Your task to perform on an android device: open device folders in google photos Image 0: 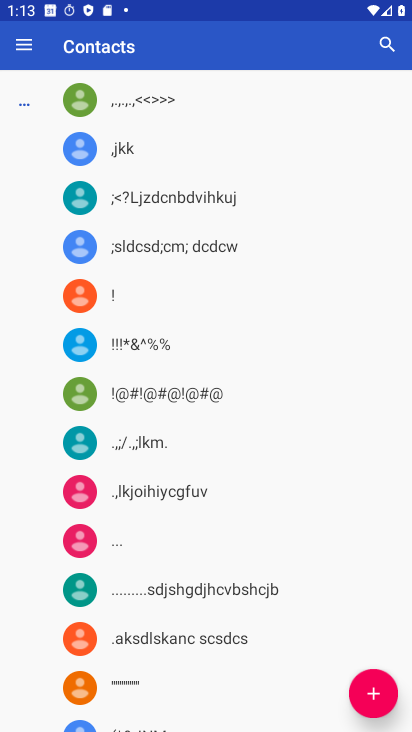
Step 0: press home button
Your task to perform on an android device: open device folders in google photos Image 1: 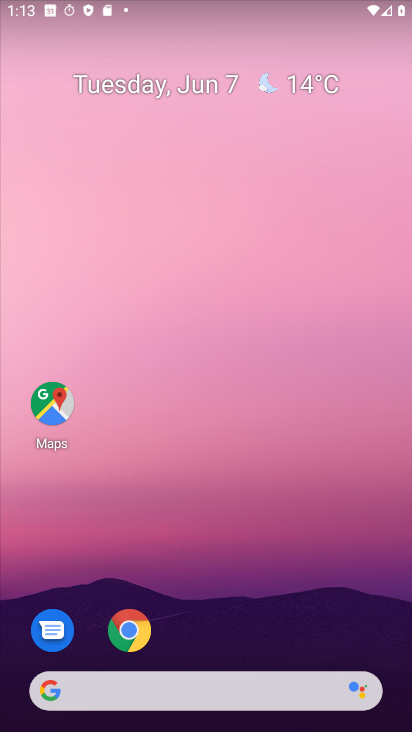
Step 1: drag from (239, 640) to (274, 19)
Your task to perform on an android device: open device folders in google photos Image 2: 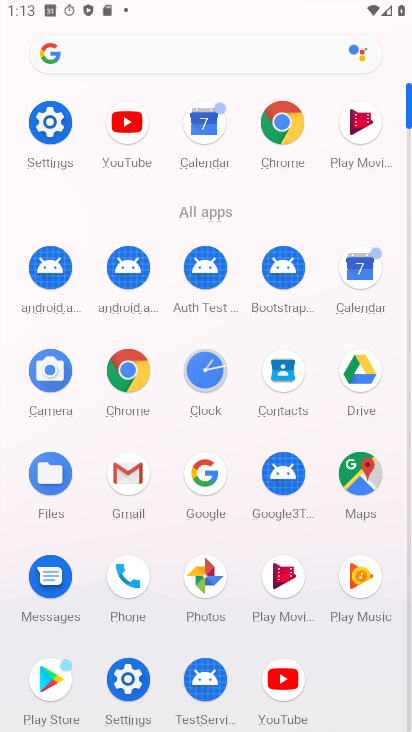
Step 2: click (210, 596)
Your task to perform on an android device: open device folders in google photos Image 3: 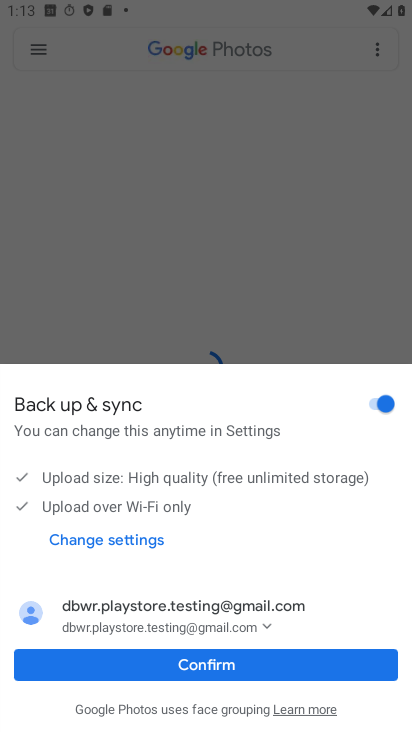
Step 3: click (212, 656)
Your task to perform on an android device: open device folders in google photos Image 4: 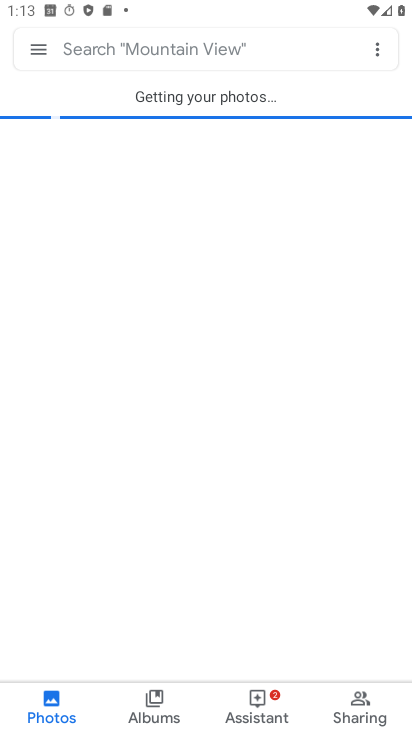
Step 4: click (39, 44)
Your task to perform on an android device: open device folders in google photos Image 5: 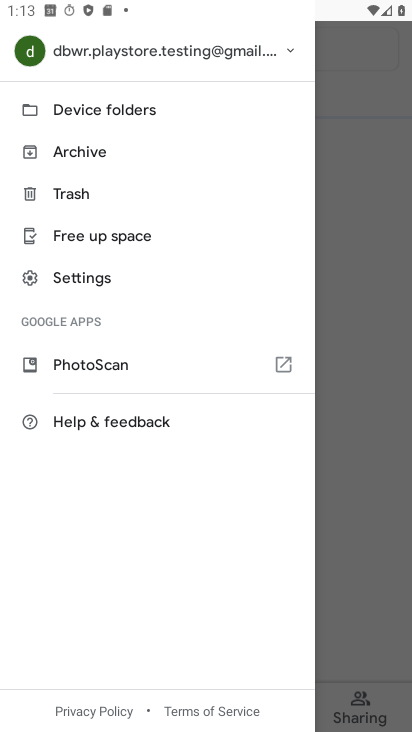
Step 5: click (133, 111)
Your task to perform on an android device: open device folders in google photos Image 6: 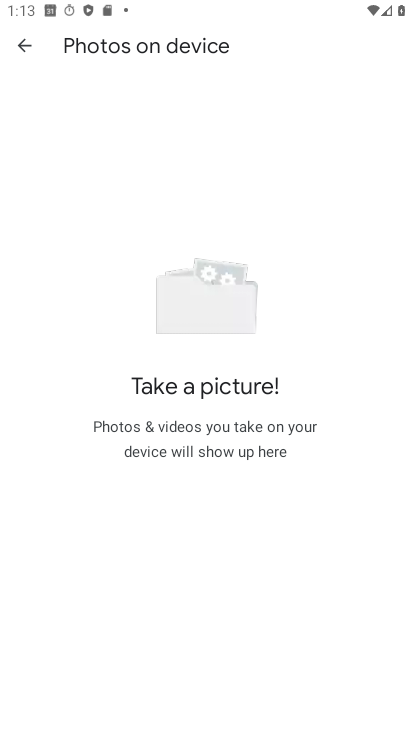
Step 6: task complete